Your task to perform on an android device: Toggle the flashlight Image 0: 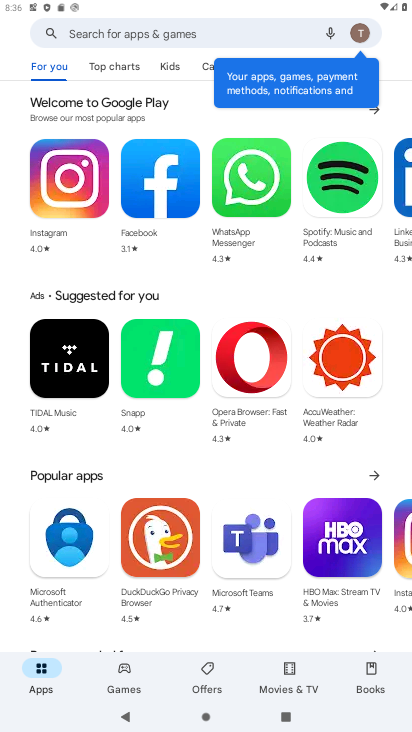
Step 0: drag from (269, 51) to (290, 555)
Your task to perform on an android device: Toggle the flashlight Image 1: 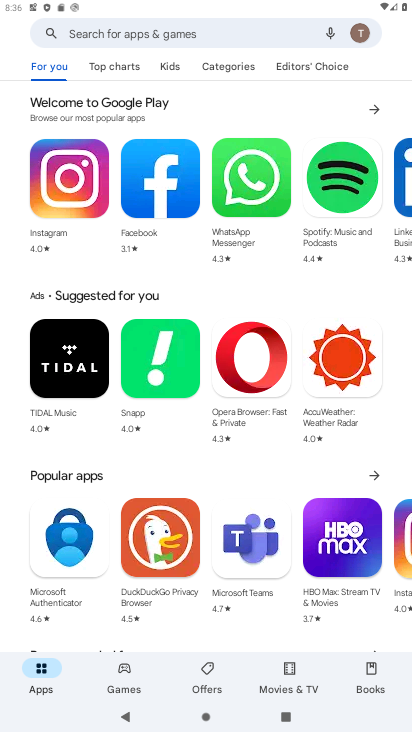
Step 1: drag from (174, 10) to (237, 552)
Your task to perform on an android device: Toggle the flashlight Image 2: 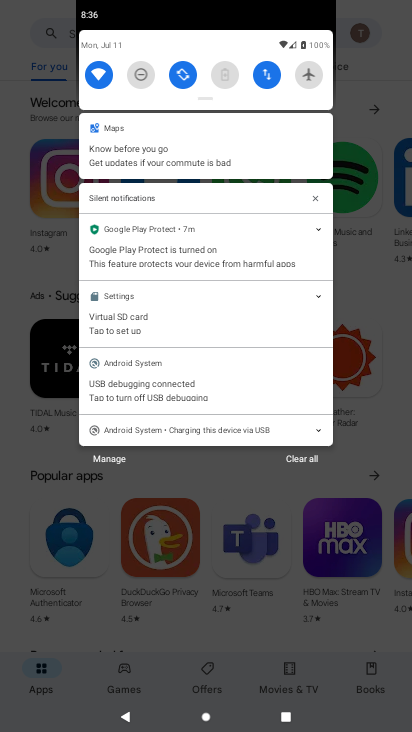
Step 2: drag from (217, 48) to (129, 686)
Your task to perform on an android device: Toggle the flashlight Image 3: 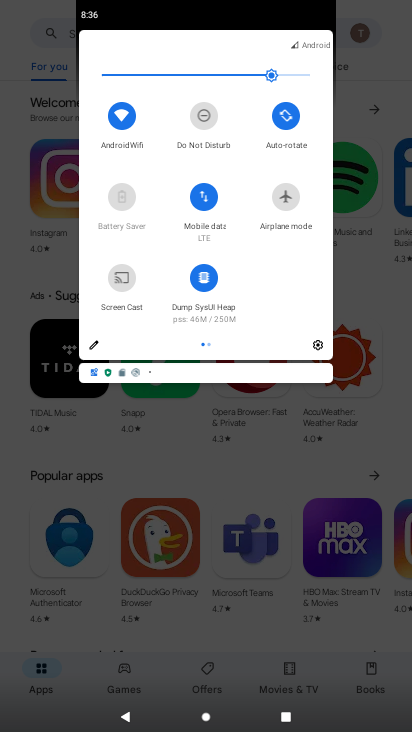
Step 3: click (318, 348)
Your task to perform on an android device: Toggle the flashlight Image 4: 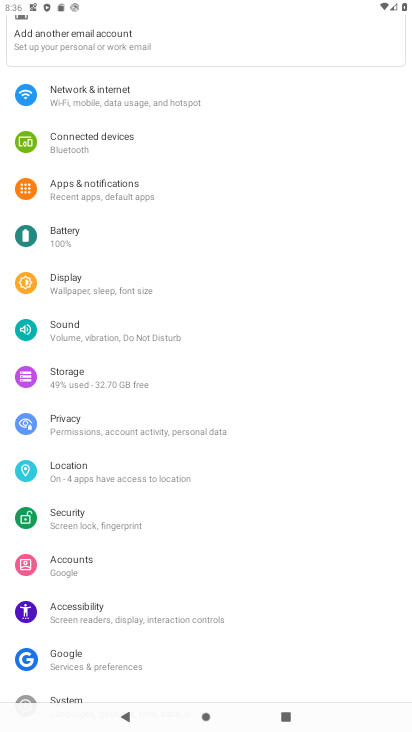
Step 4: task complete